Your task to perform on an android device: turn on data saver in the chrome app Image 0: 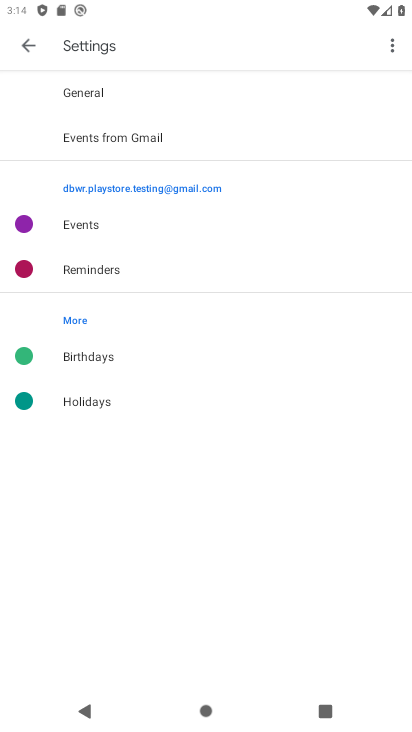
Step 0: press home button
Your task to perform on an android device: turn on data saver in the chrome app Image 1: 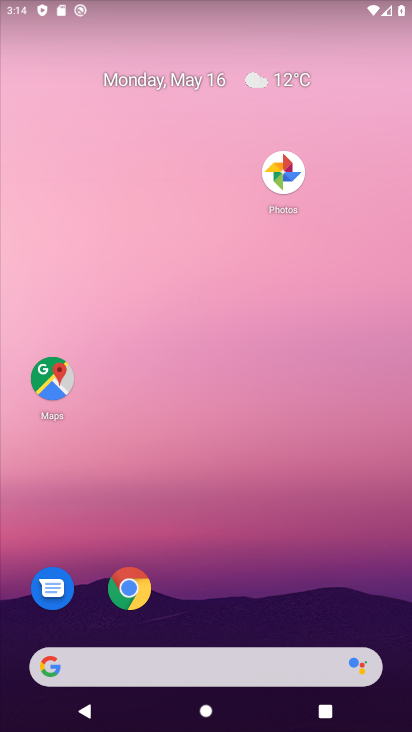
Step 1: click (131, 596)
Your task to perform on an android device: turn on data saver in the chrome app Image 2: 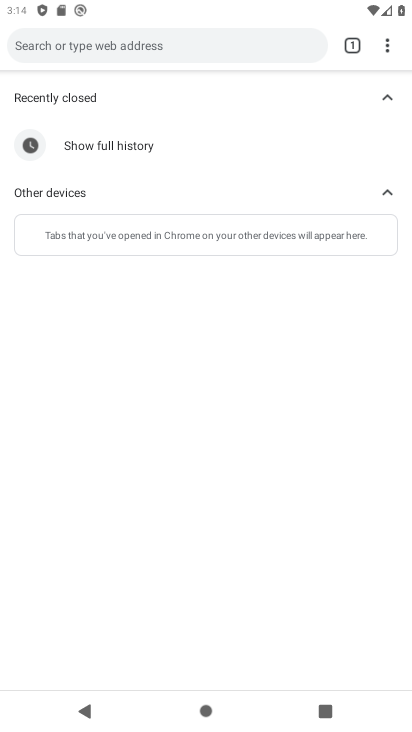
Step 2: click (377, 48)
Your task to perform on an android device: turn on data saver in the chrome app Image 3: 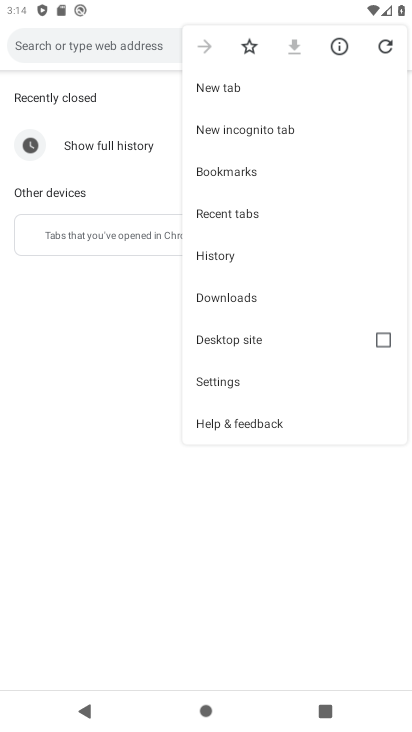
Step 3: click (255, 395)
Your task to perform on an android device: turn on data saver in the chrome app Image 4: 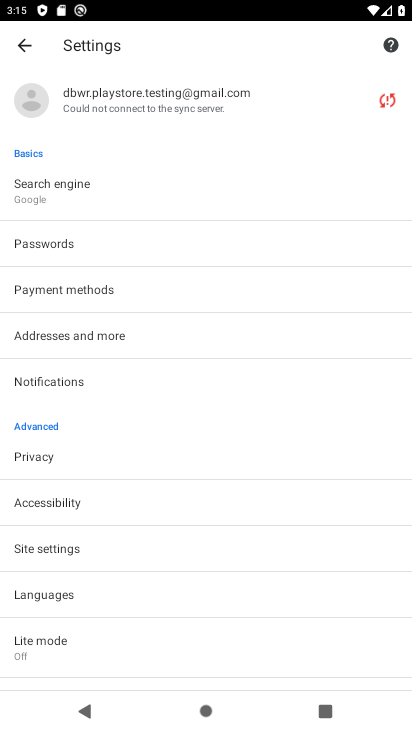
Step 4: click (114, 643)
Your task to perform on an android device: turn on data saver in the chrome app Image 5: 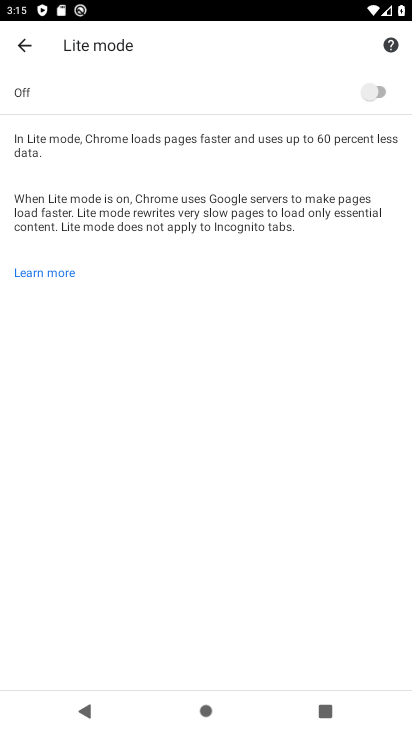
Step 5: click (363, 96)
Your task to perform on an android device: turn on data saver in the chrome app Image 6: 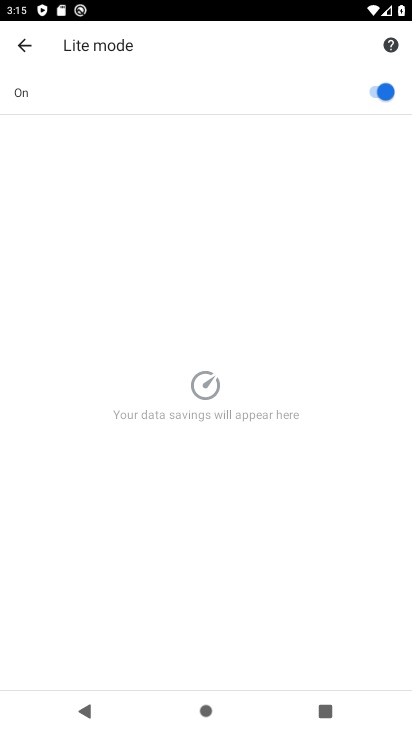
Step 6: task complete